Your task to perform on an android device: toggle location history Image 0: 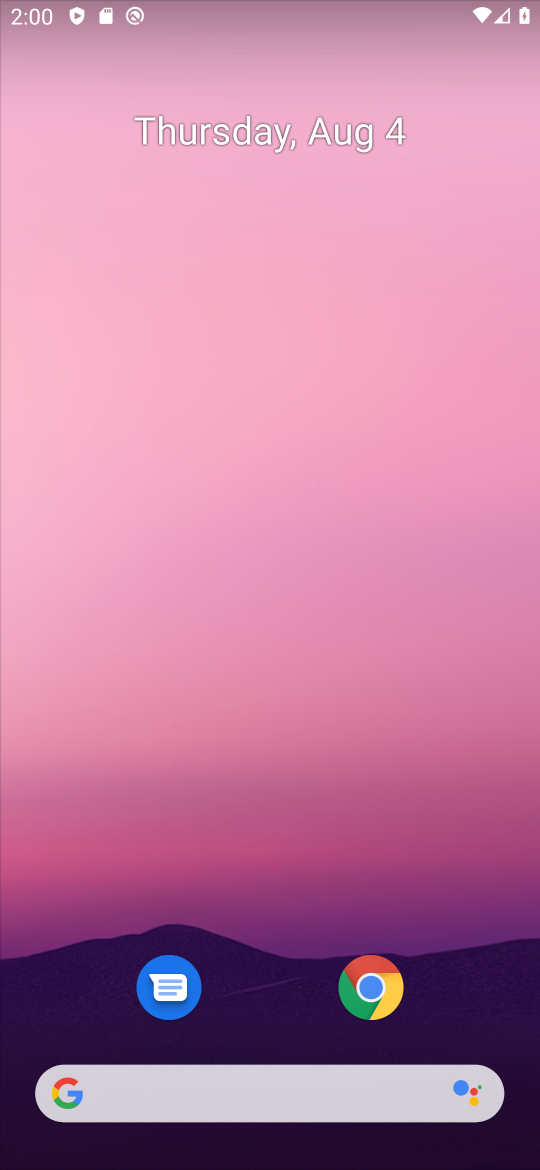
Step 0: drag from (473, 1004) to (275, 108)
Your task to perform on an android device: toggle location history Image 1: 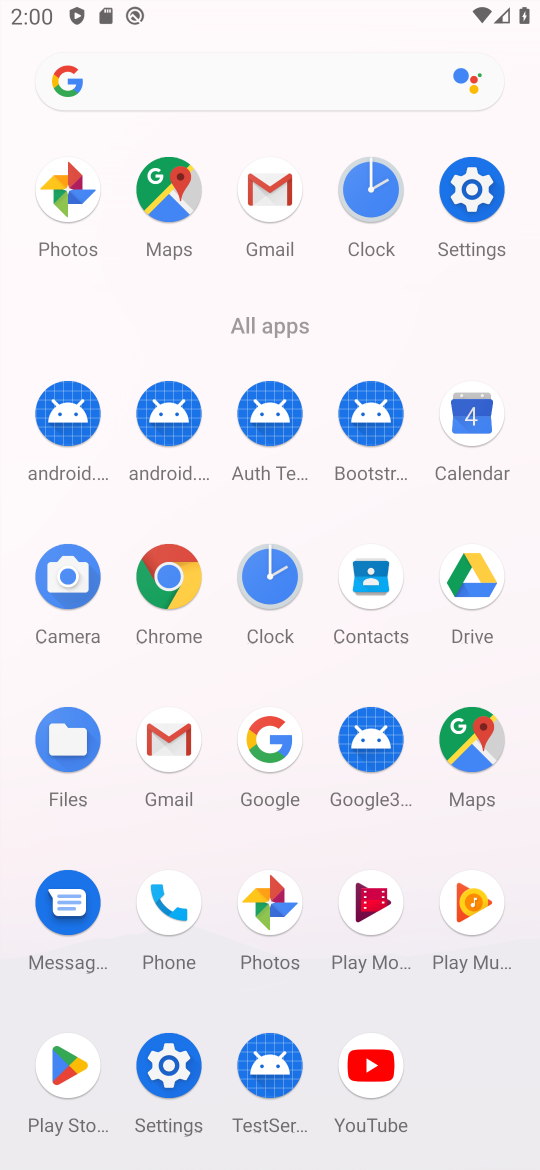
Step 1: click (177, 1085)
Your task to perform on an android device: toggle location history Image 2: 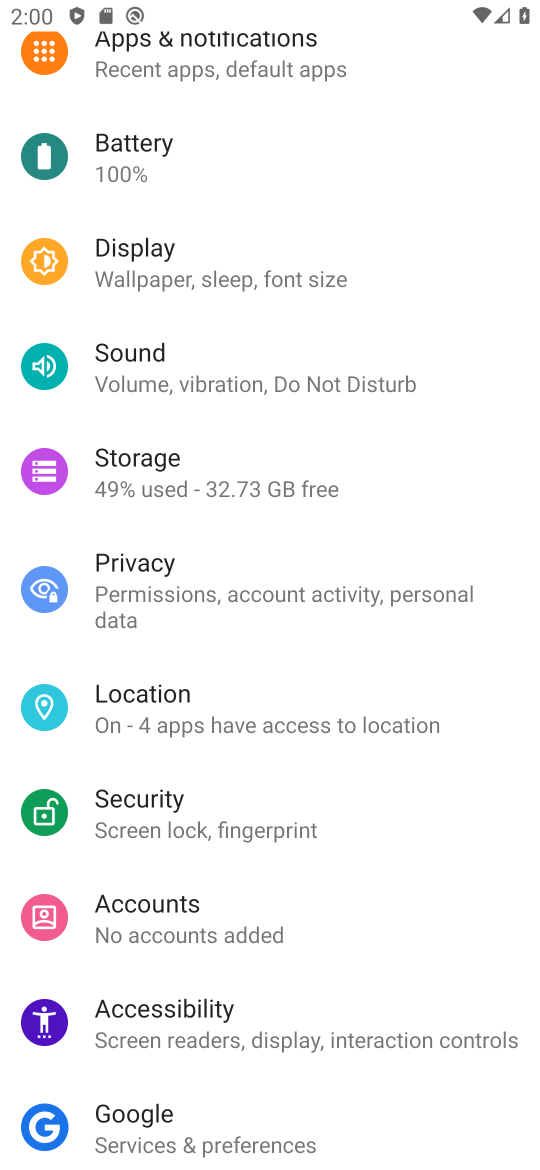
Step 2: click (225, 714)
Your task to perform on an android device: toggle location history Image 3: 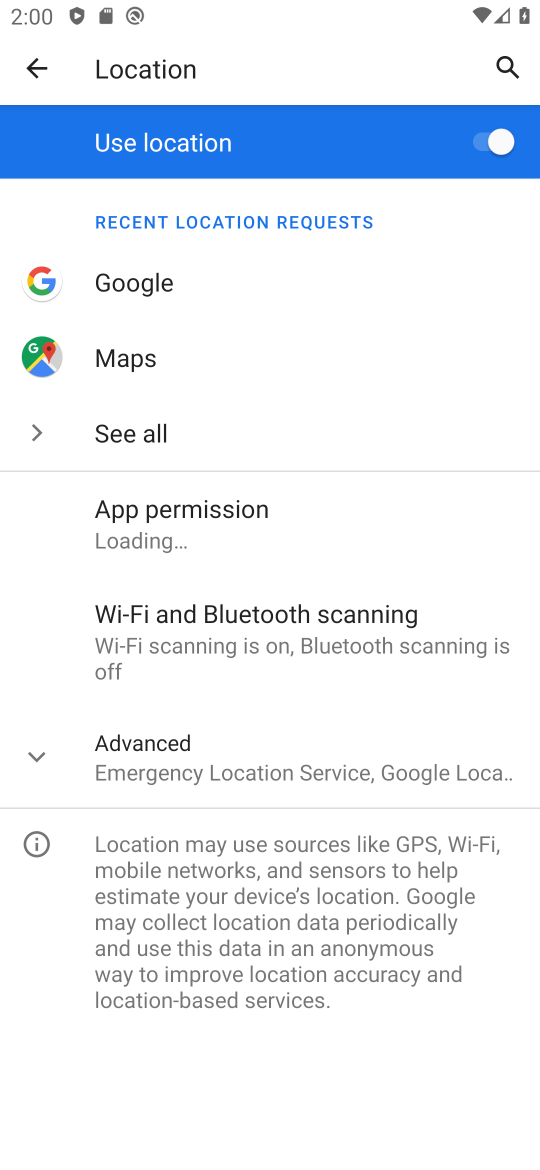
Step 3: click (94, 776)
Your task to perform on an android device: toggle location history Image 4: 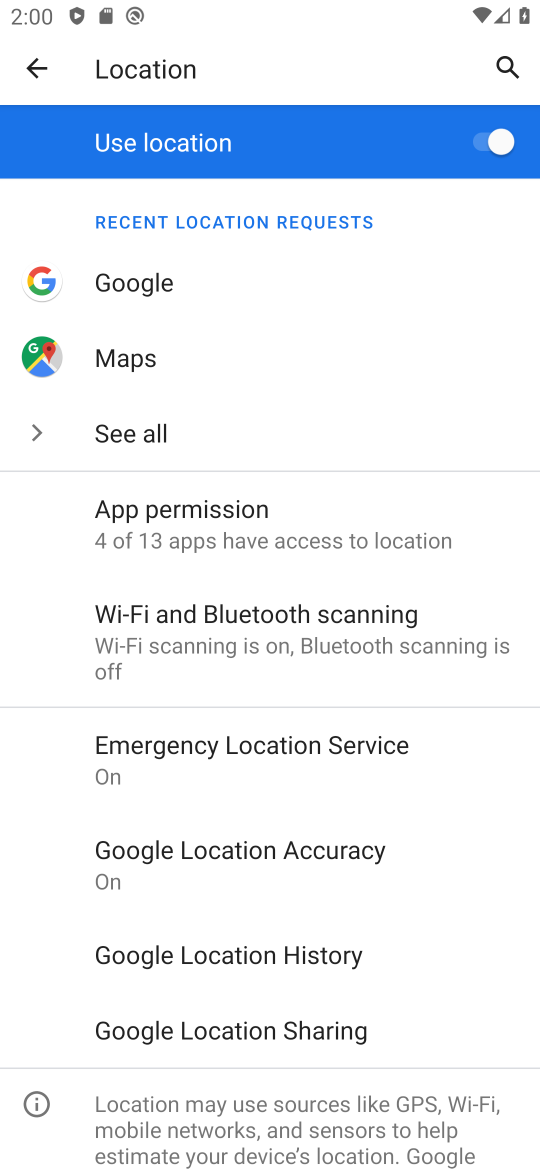
Step 4: click (277, 938)
Your task to perform on an android device: toggle location history Image 5: 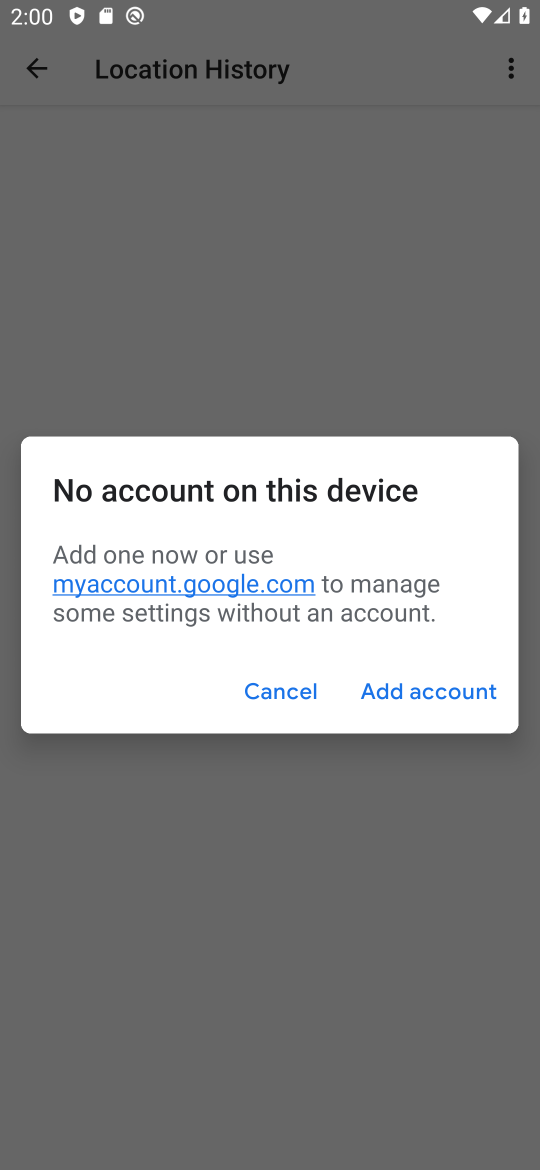
Step 5: click (278, 704)
Your task to perform on an android device: toggle location history Image 6: 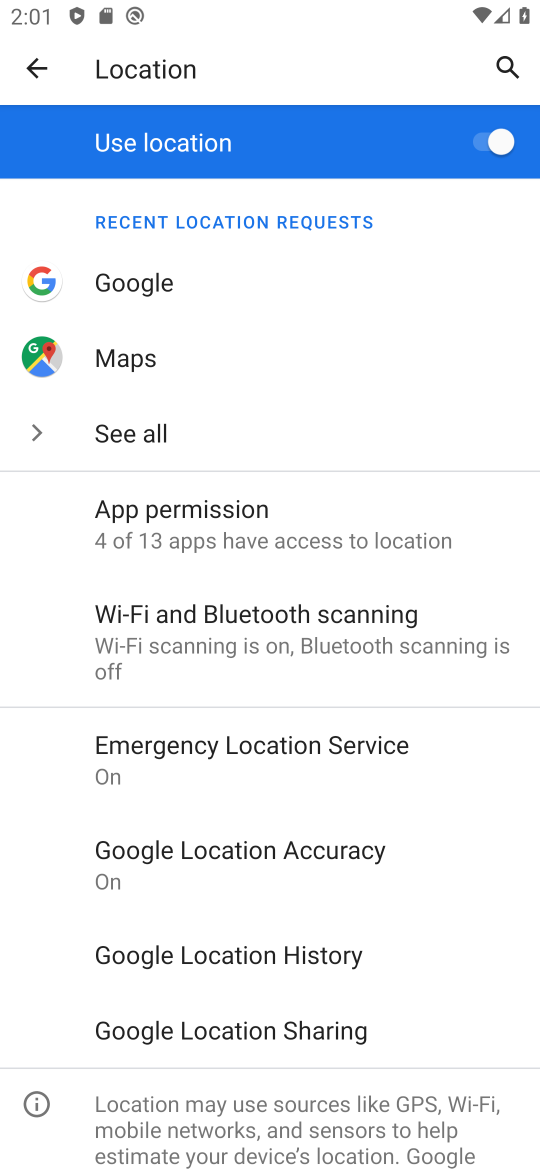
Step 6: click (242, 959)
Your task to perform on an android device: toggle location history Image 7: 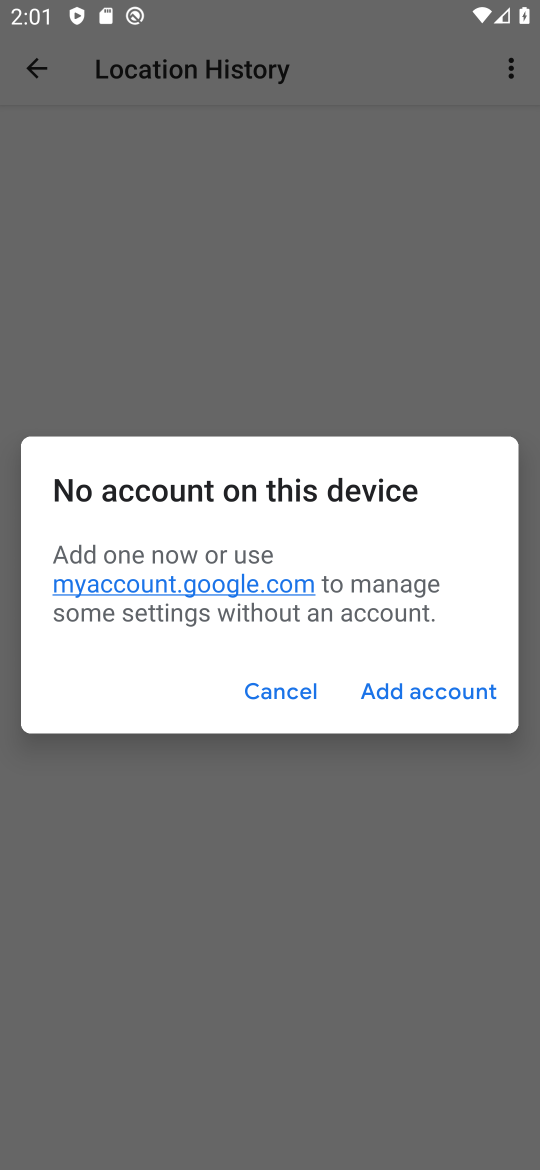
Step 7: task complete